Your task to perform on an android device: Turn on the flashlight Image 0: 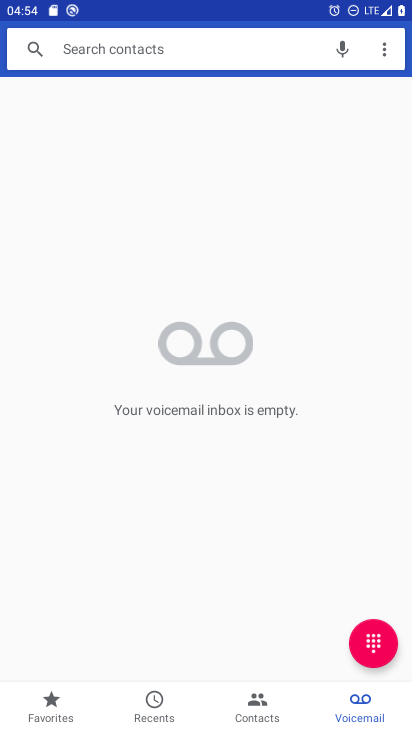
Step 0: press back button
Your task to perform on an android device: Turn on the flashlight Image 1: 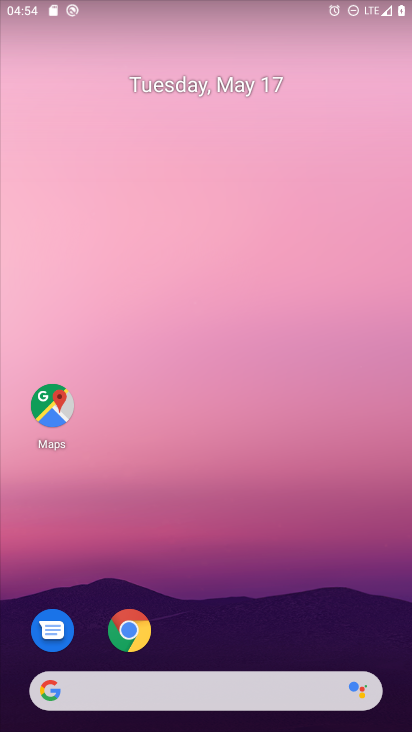
Step 1: drag from (201, 619) to (222, 137)
Your task to perform on an android device: Turn on the flashlight Image 2: 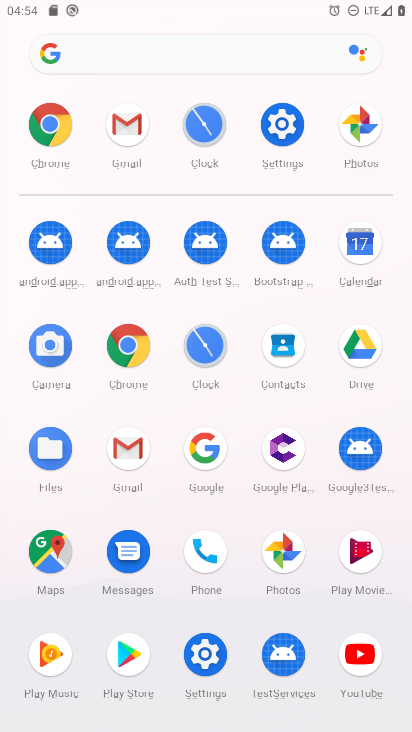
Step 2: click (285, 119)
Your task to perform on an android device: Turn on the flashlight Image 3: 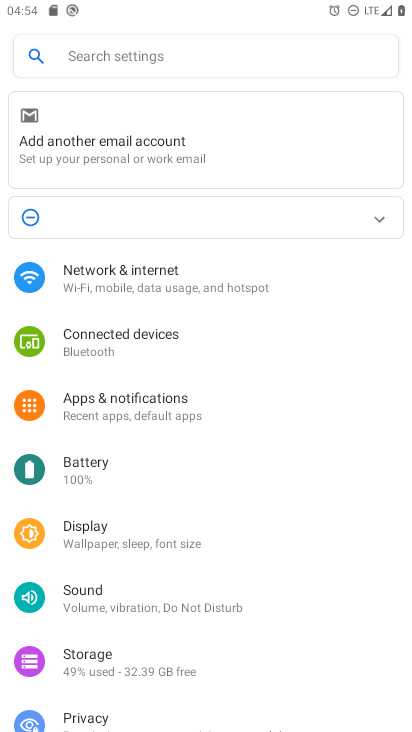
Step 3: click (83, 53)
Your task to perform on an android device: Turn on the flashlight Image 4: 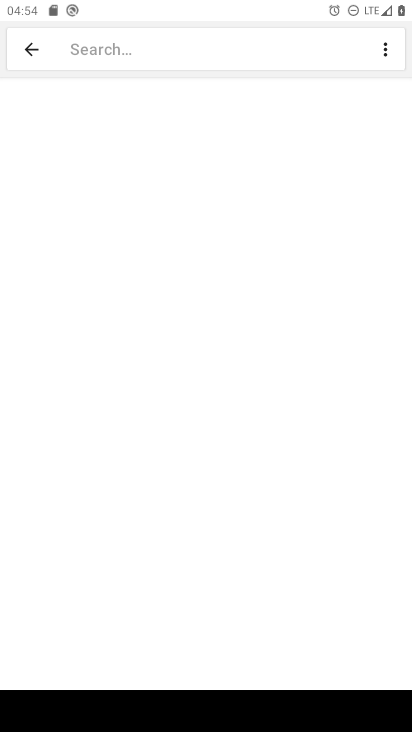
Step 4: type "flashlight"
Your task to perform on an android device: Turn on the flashlight Image 5: 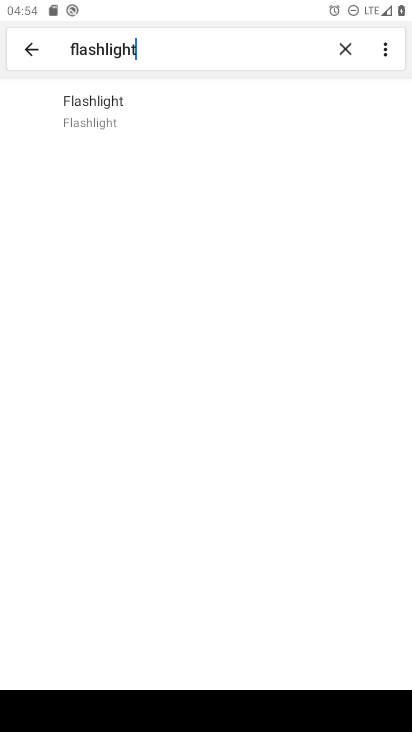
Step 5: click (134, 125)
Your task to perform on an android device: Turn on the flashlight Image 6: 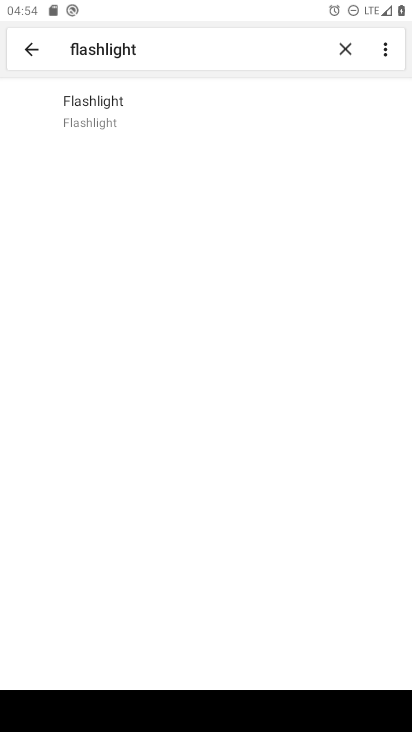
Step 6: task complete